Your task to perform on an android device: open a new tab in the chrome app Image 0: 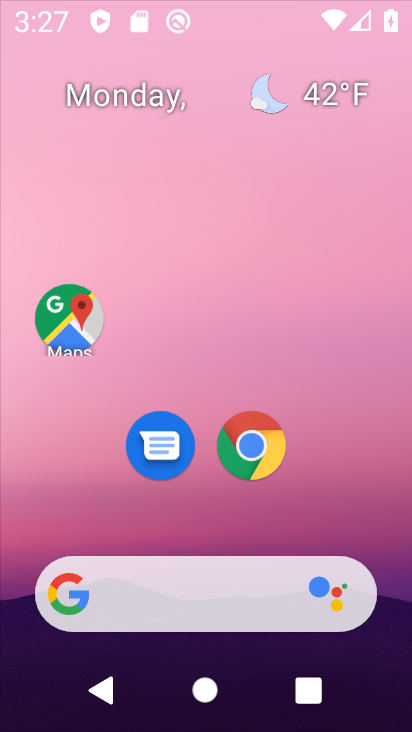
Step 0: drag from (106, 437) to (258, 33)
Your task to perform on an android device: open a new tab in the chrome app Image 1: 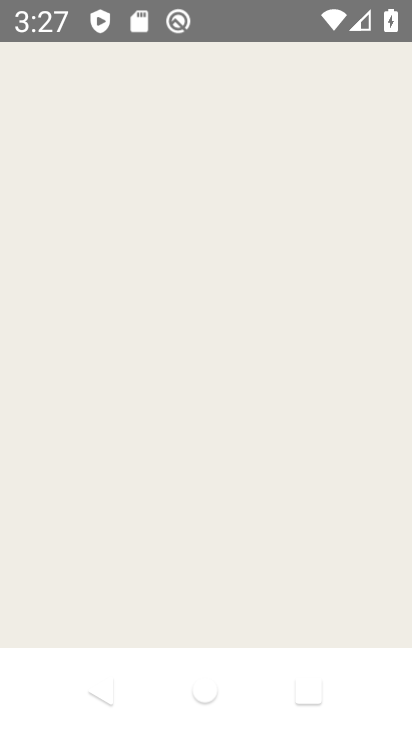
Step 1: press home button
Your task to perform on an android device: open a new tab in the chrome app Image 2: 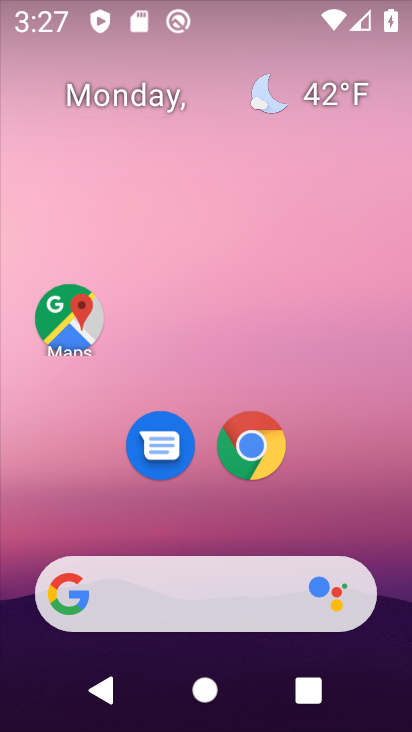
Step 2: drag from (7, 492) to (249, 36)
Your task to perform on an android device: open a new tab in the chrome app Image 3: 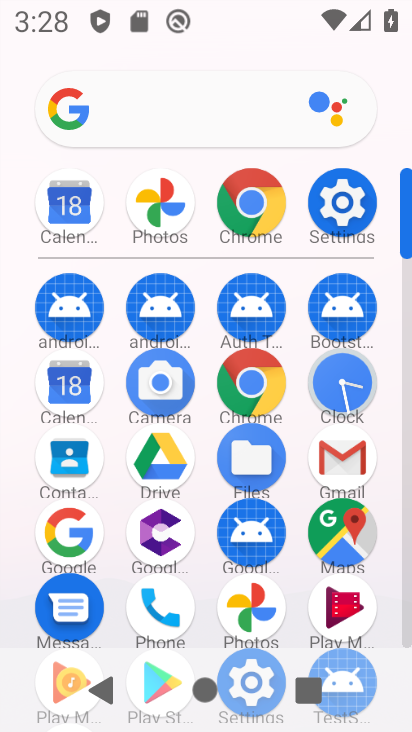
Step 3: click (262, 374)
Your task to perform on an android device: open a new tab in the chrome app Image 4: 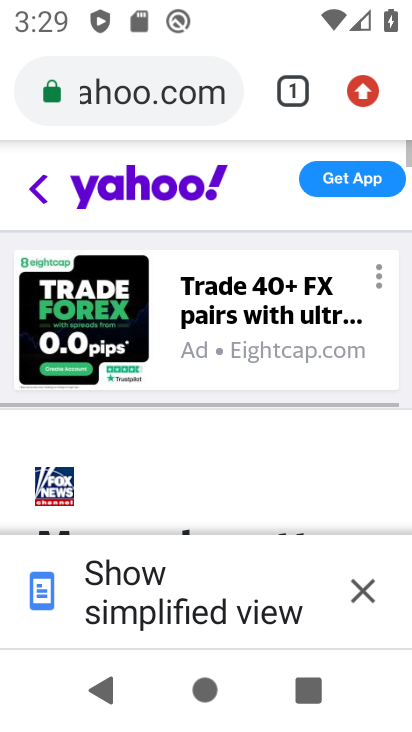
Step 4: press back button
Your task to perform on an android device: open a new tab in the chrome app Image 5: 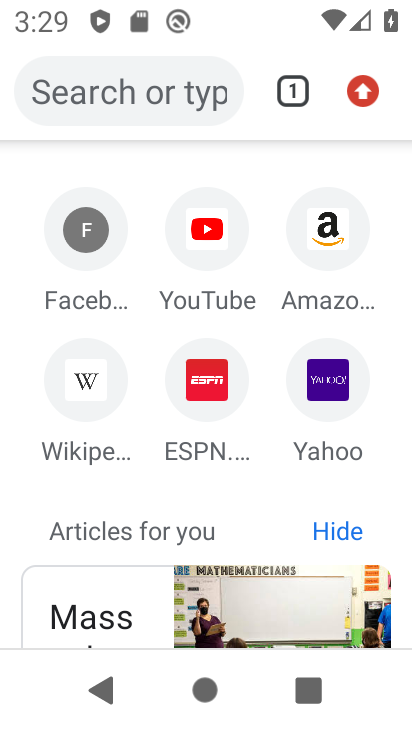
Step 5: click (359, 98)
Your task to perform on an android device: open a new tab in the chrome app Image 6: 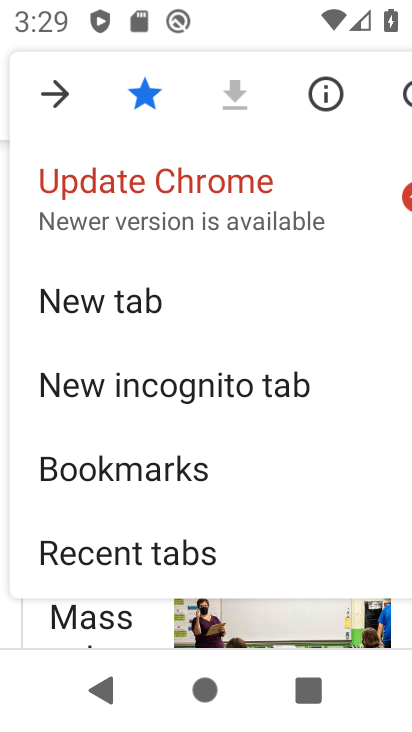
Step 6: click (121, 303)
Your task to perform on an android device: open a new tab in the chrome app Image 7: 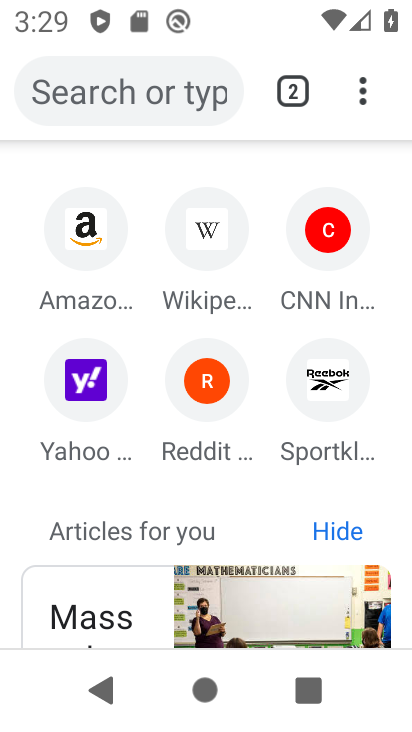
Step 7: task complete